Your task to perform on an android device: Open settings Image 0: 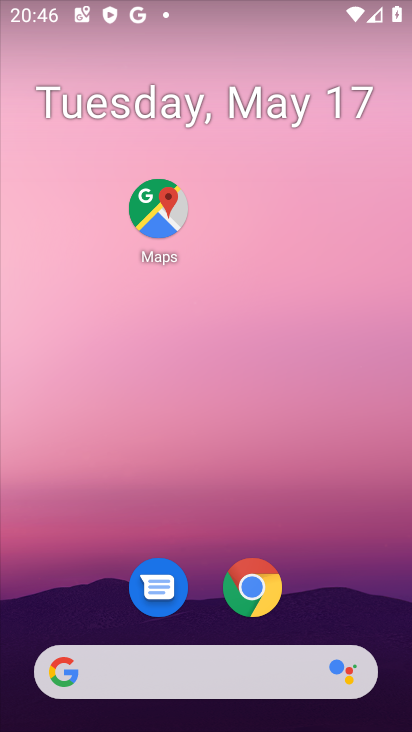
Step 0: drag from (45, 534) to (319, 193)
Your task to perform on an android device: Open settings Image 1: 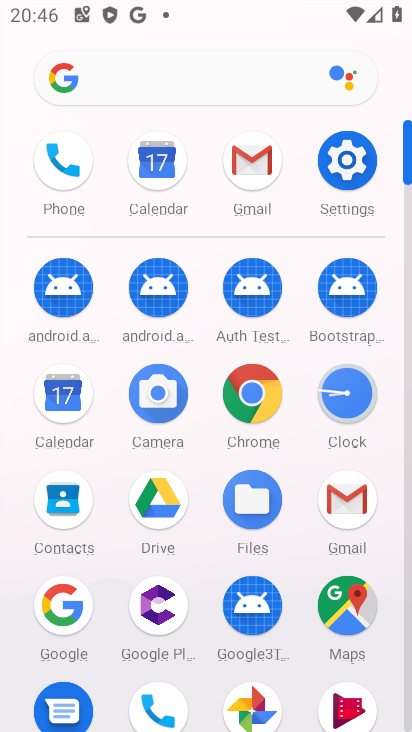
Step 1: click (348, 165)
Your task to perform on an android device: Open settings Image 2: 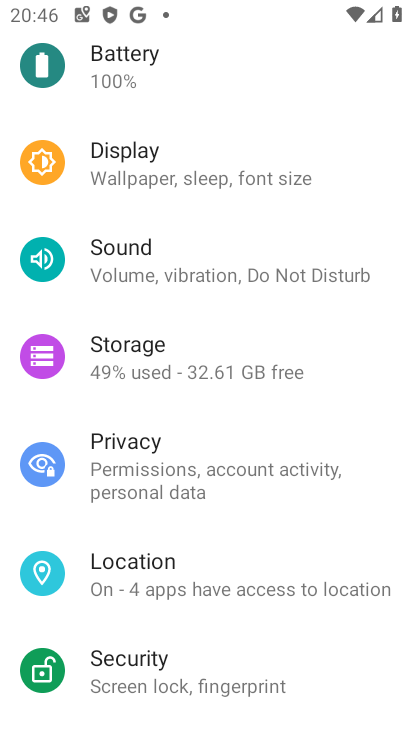
Step 2: task complete